Your task to perform on an android device: Go to privacy settings Image 0: 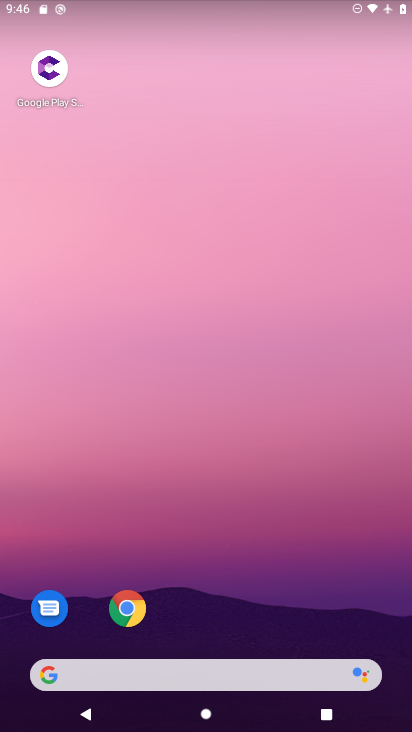
Step 0: drag from (278, 252) to (242, 53)
Your task to perform on an android device: Go to privacy settings Image 1: 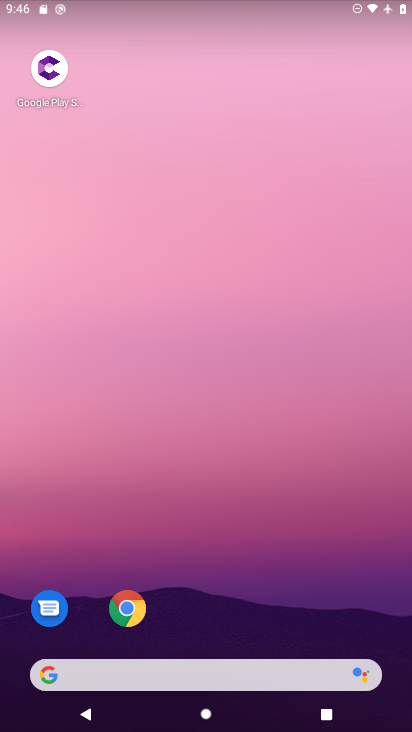
Step 1: drag from (311, 470) to (256, 10)
Your task to perform on an android device: Go to privacy settings Image 2: 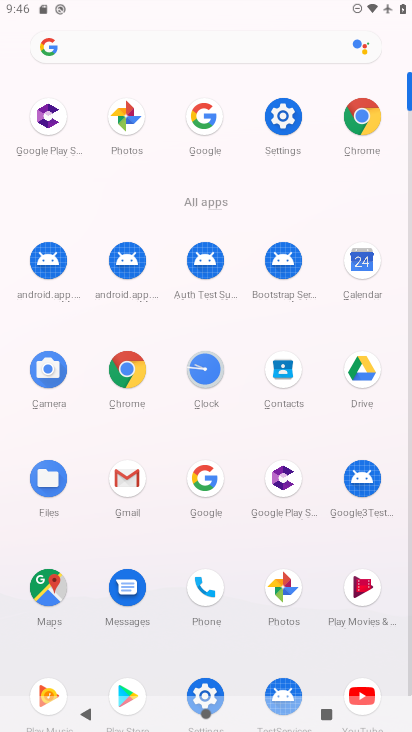
Step 2: click (276, 114)
Your task to perform on an android device: Go to privacy settings Image 3: 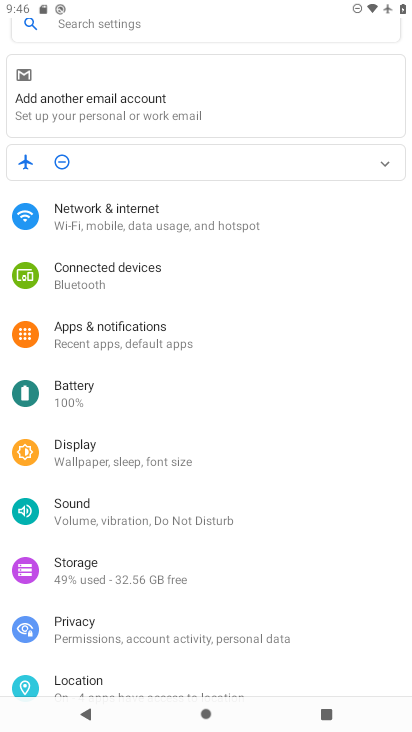
Step 3: click (173, 642)
Your task to perform on an android device: Go to privacy settings Image 4: 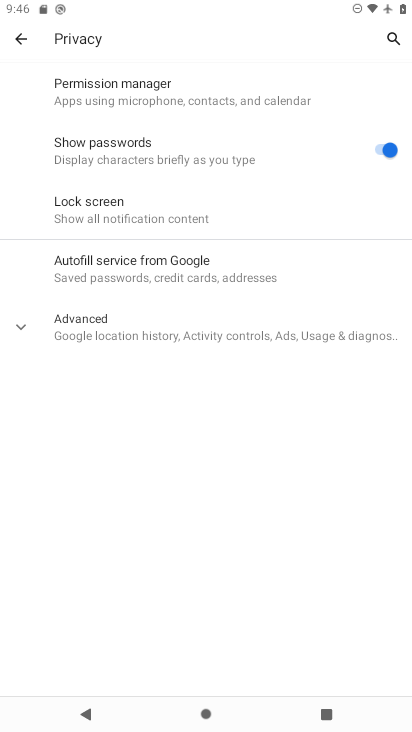
Step 4: task complete